Your task to perform on an android device: Open the map Image 0: 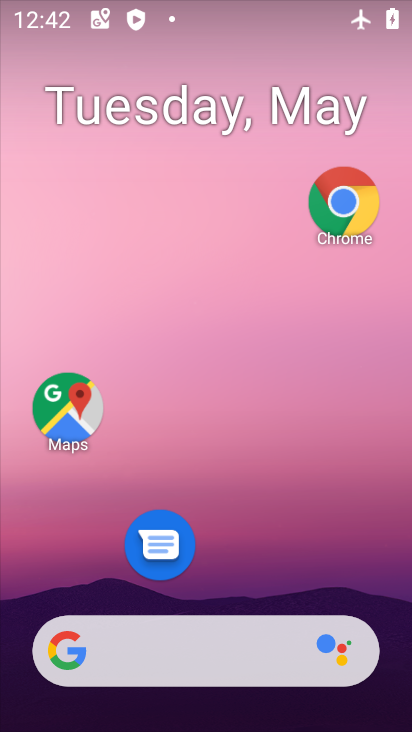
Step 0: click (69, 403)
Your task to perform on an android device: Open the map Image 1: 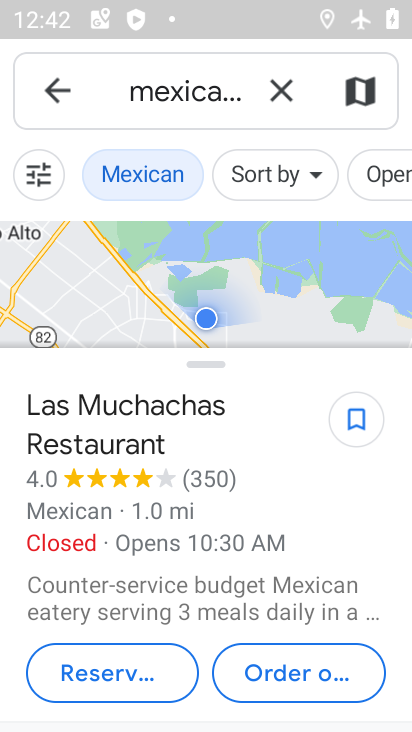
Step 1: task complete